Your task to perform on an android device: Show me recent news Image 0: 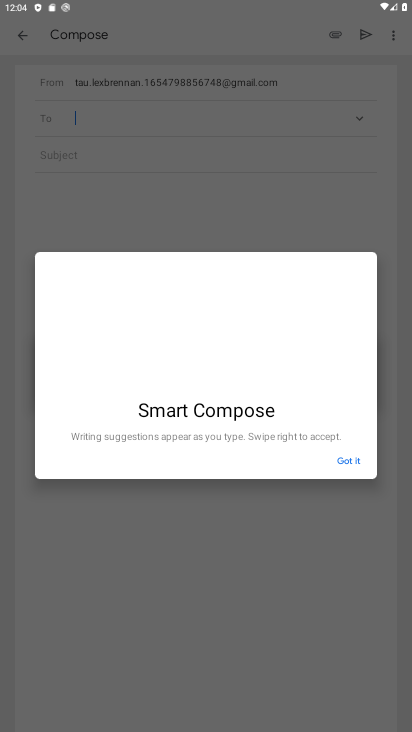
Step 0: press home button
Your task to perform on an android device: Show me recent news Image 1: 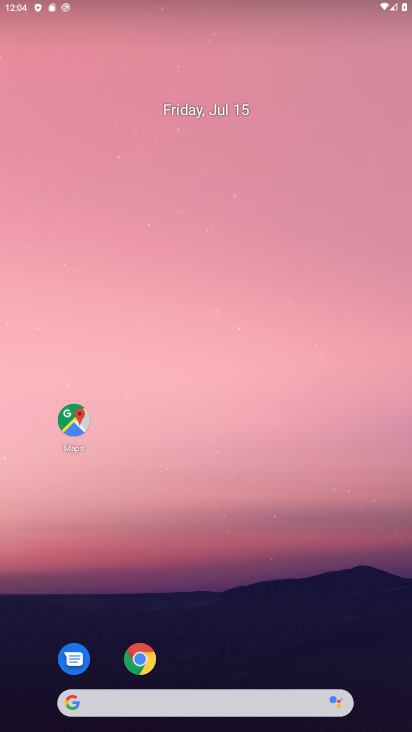
Step 1: drag from (208, 654) to (129, 89)
Your task to perform on an android device: Show me recent news Image 2: 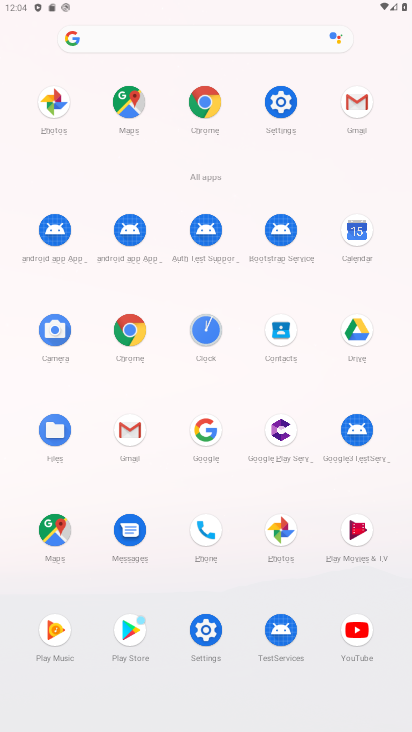
Step 2: click (196, 422)
Your task to perform on an android device: Show me recent news Image 3: 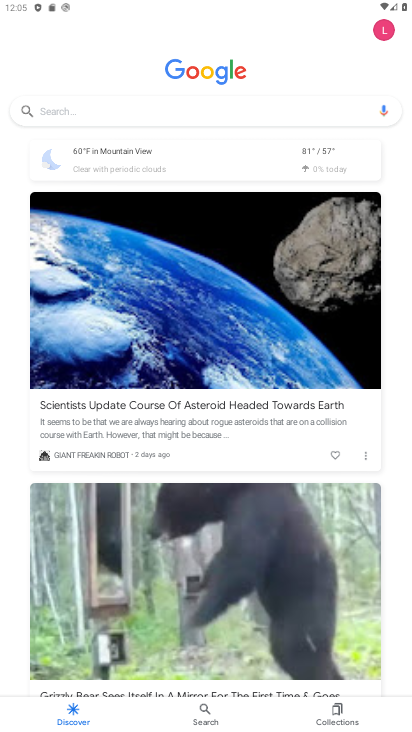
Step 3: click (119, 107)
Your task to perform on an android device: Show me recent news Image 4: 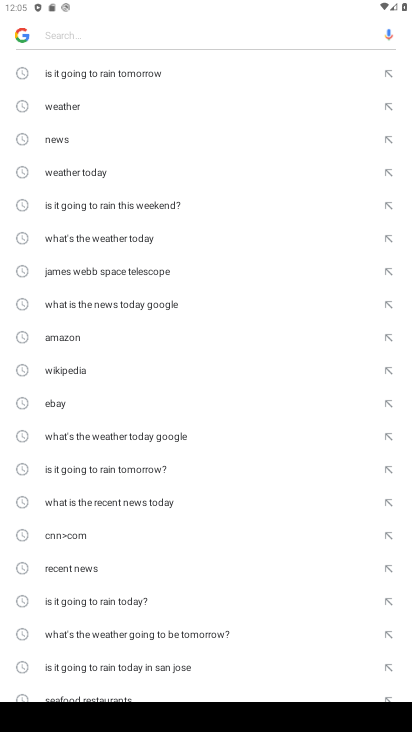
Step 4: click (90, 138)
Your task to perform on an android device: Show me recent news Image 5: 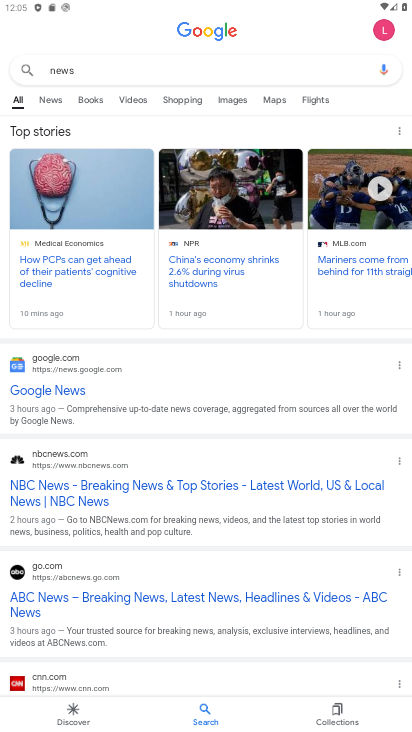
Step 5: click (43, 104)
Your task to perform on an android device: Show me recent news Image 6: 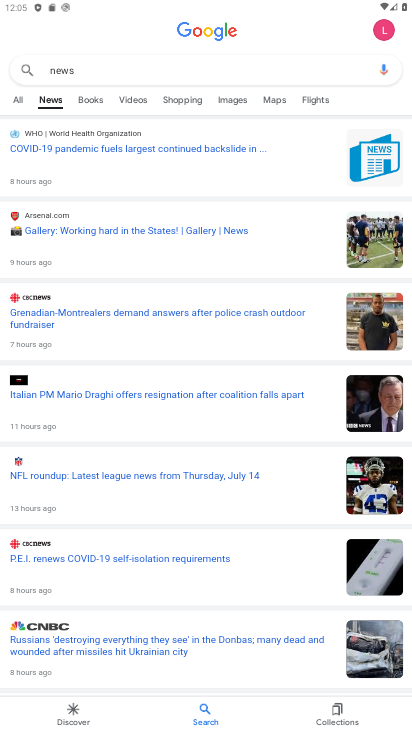
Step 6: task complete